Your task to perform on an android device: Do I have any events tomorrow? Image 0: 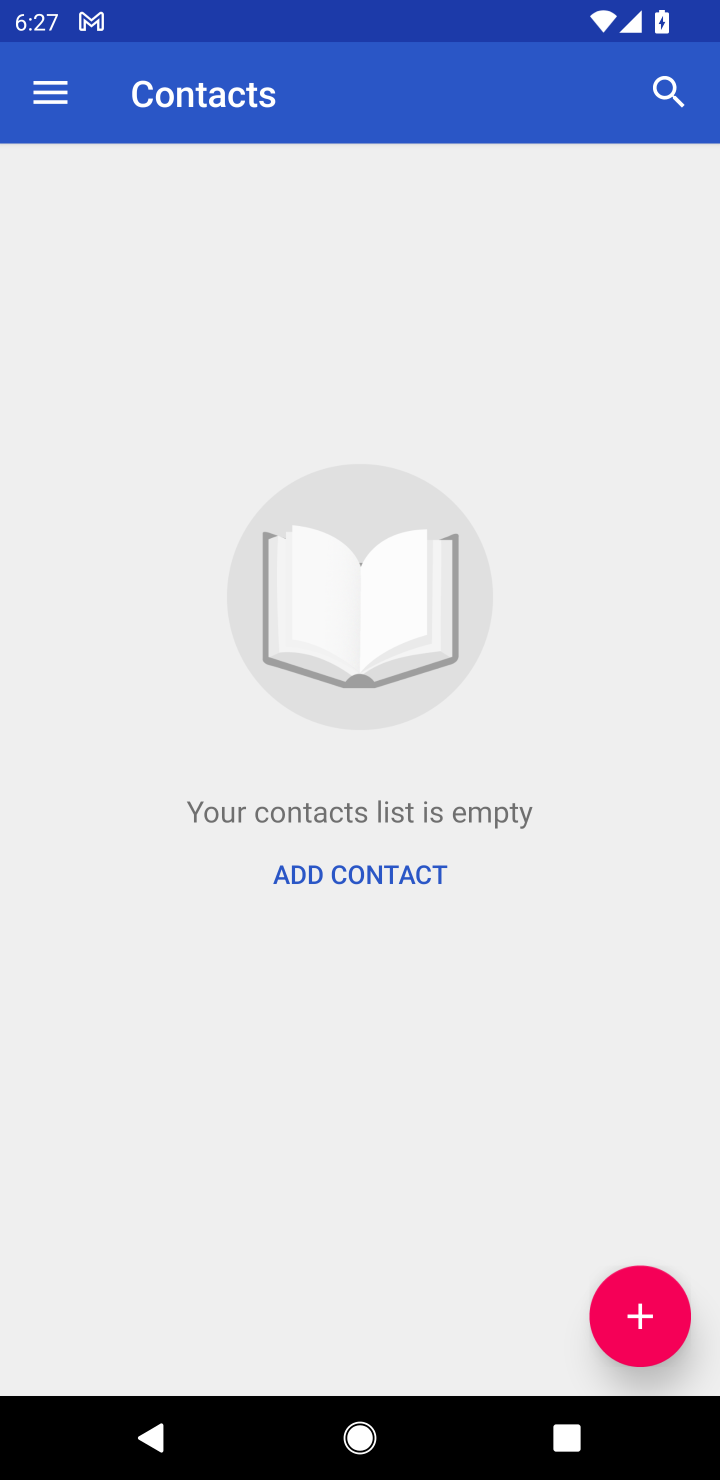
Step 0: press home button
Your task to perform on an android device: Do I have any events tomorrow? Image 1: 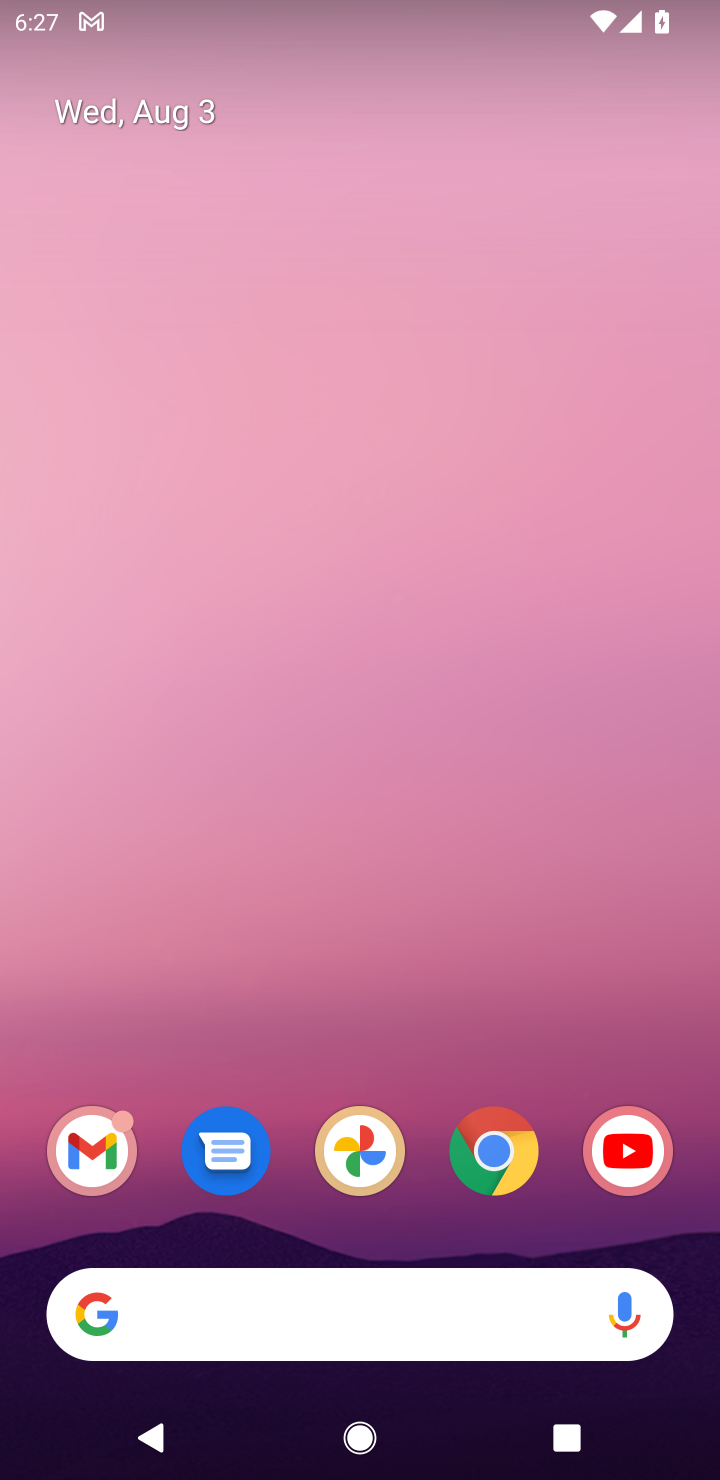
Step 1: drag from (436, 1105) to (390, 399)
Your task to perform on an android device: Do I have any events tomorrow? Image 2: 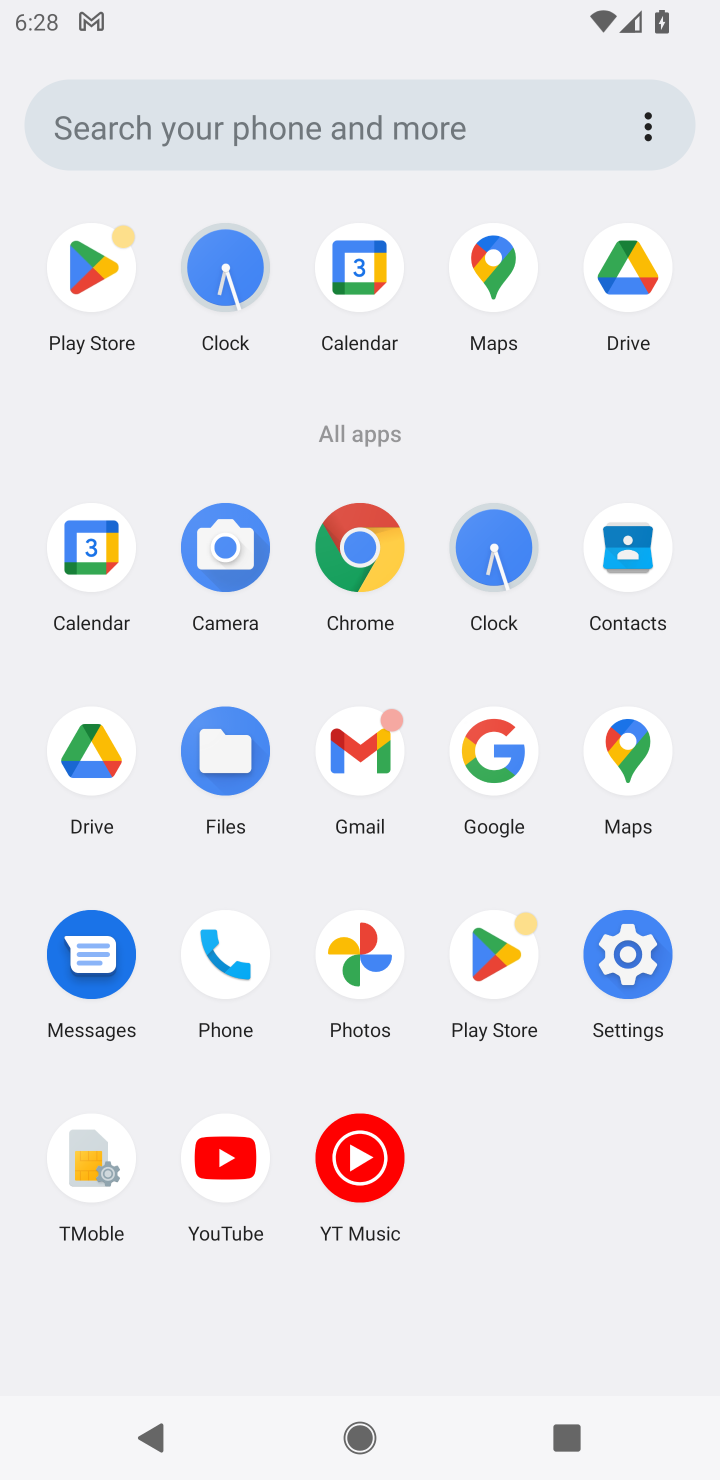
Step 2: click (98, 556)
Your task to perform on an android device: Do I have any events tomorrow? Image 3: 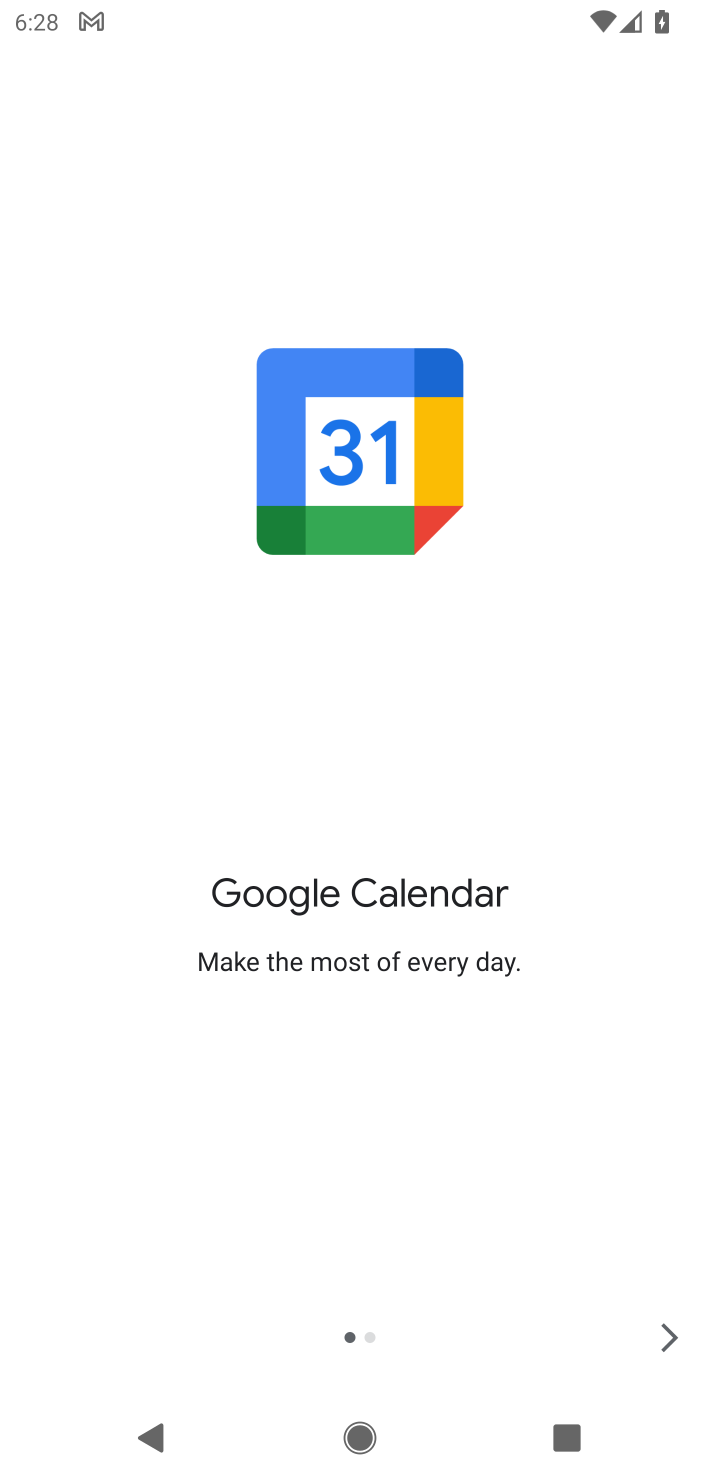
Step 3: click (676, 1330)
Your task to perform on an android device: Do I have any events tomorrow? Image 4: 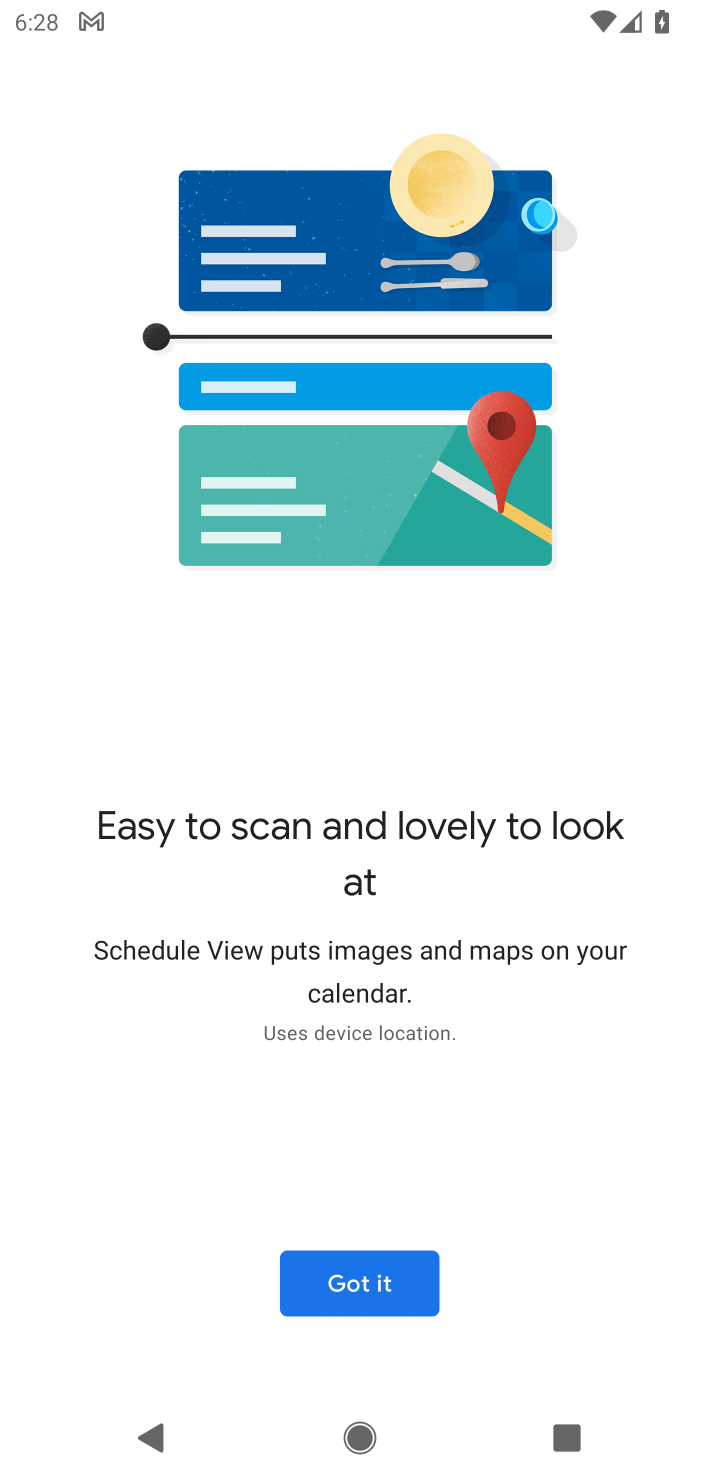
Step 4: click (365, 1267)
Your task to perform on an android device: Do I have any events tomorrow? Image 5: 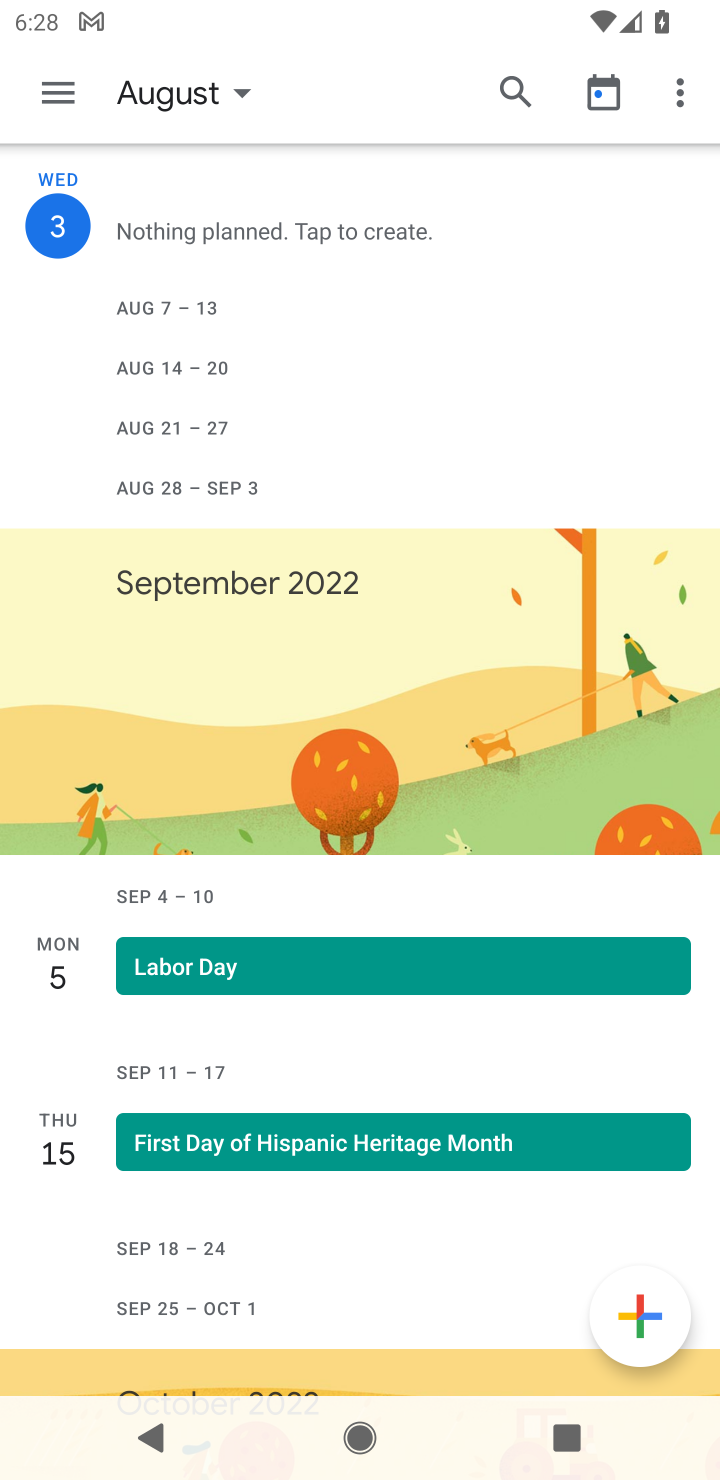
Step 5: click (64, 84)
Your task to perform on an android device: Do I have any events tomorrow? Image 6: 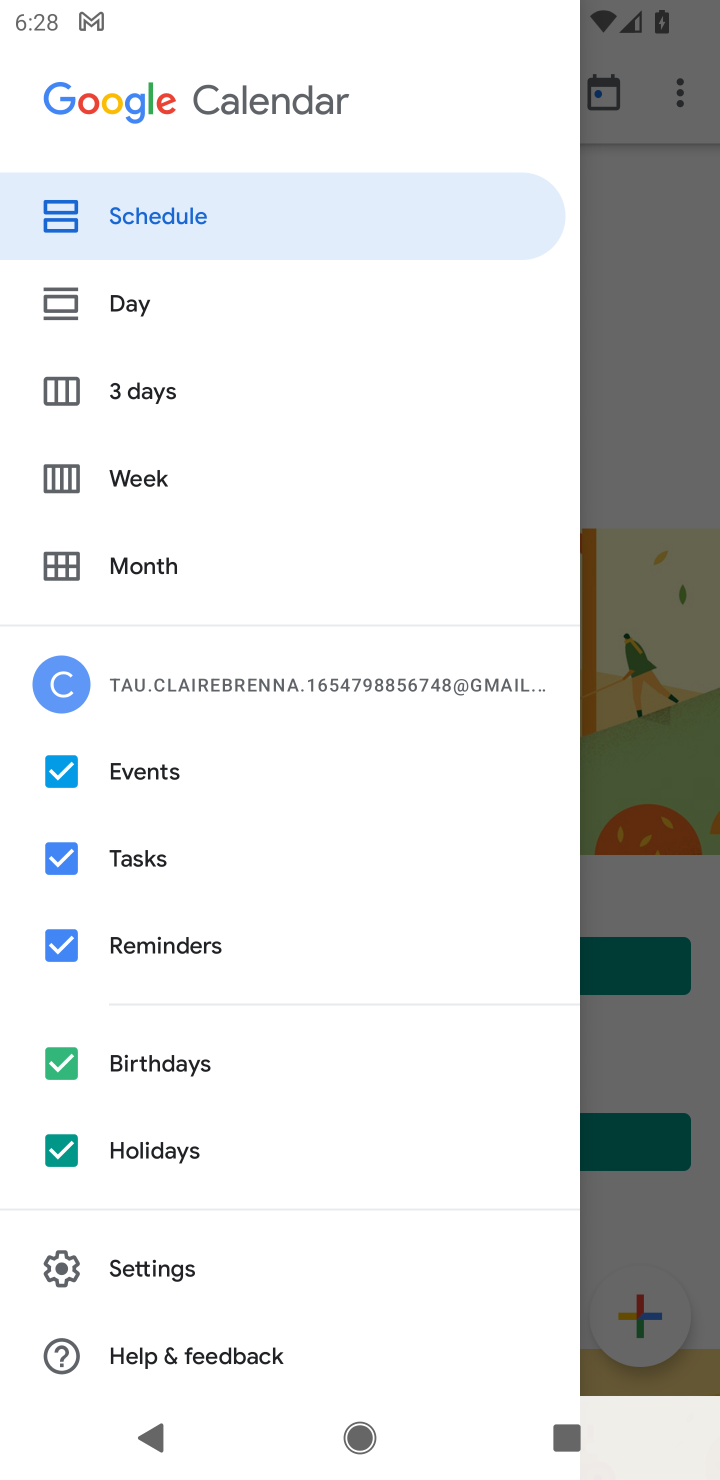
Step 6: click (151, 292)
Your task to perform on an android device: Do I have any events tomorrow? Image 7: 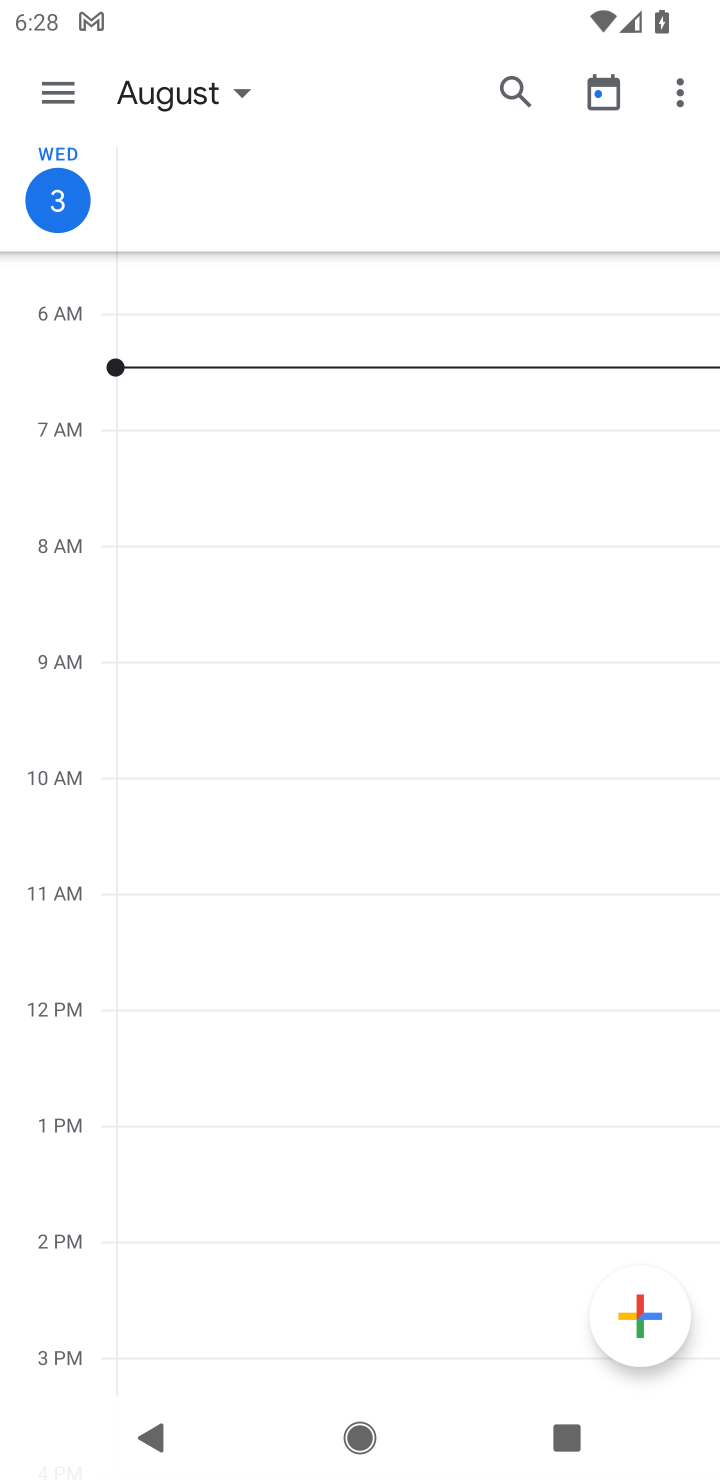
Step 7: click (235, 82)
Your task to perform on an android device: Do I have any events tomorrow? Image 8: 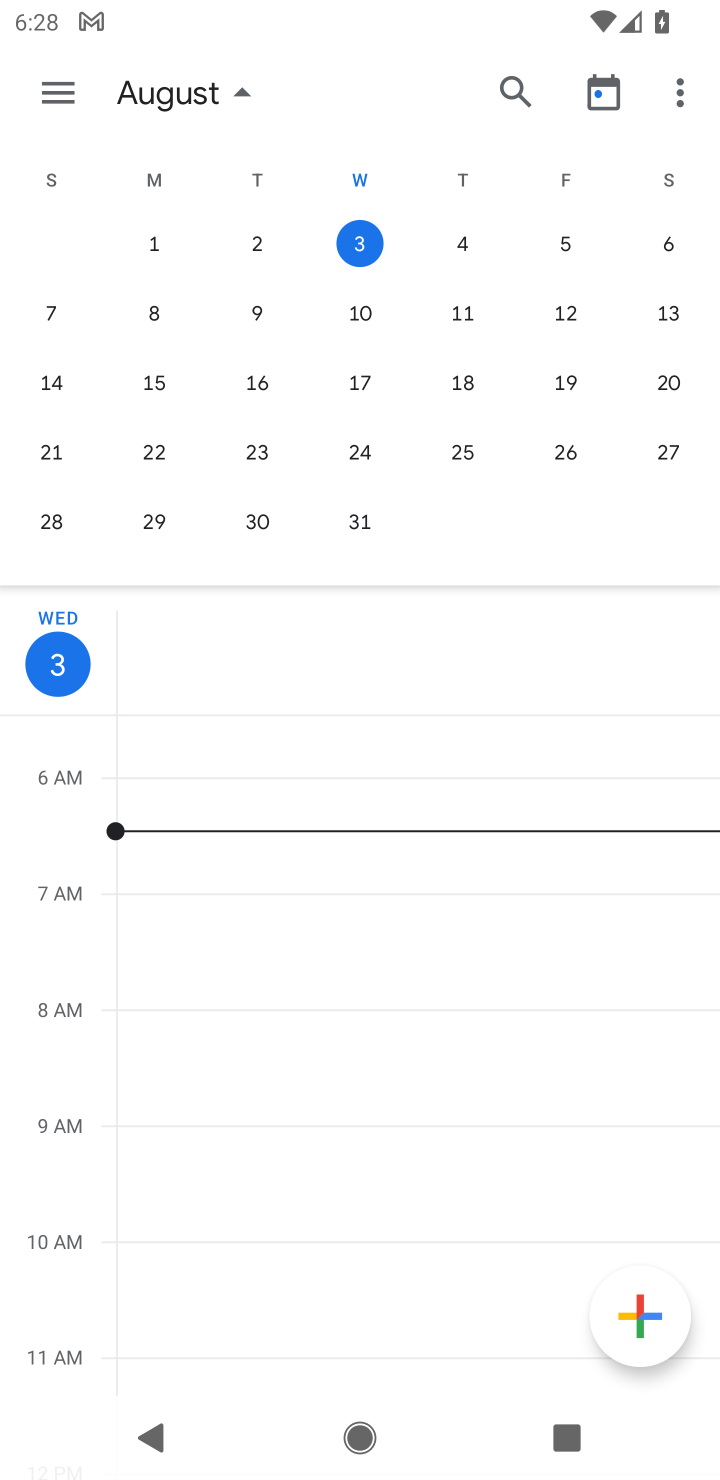
Step 8: click (466, 246)
Your task to perform on an android device: Do I have any events tomorrow? Image 9: 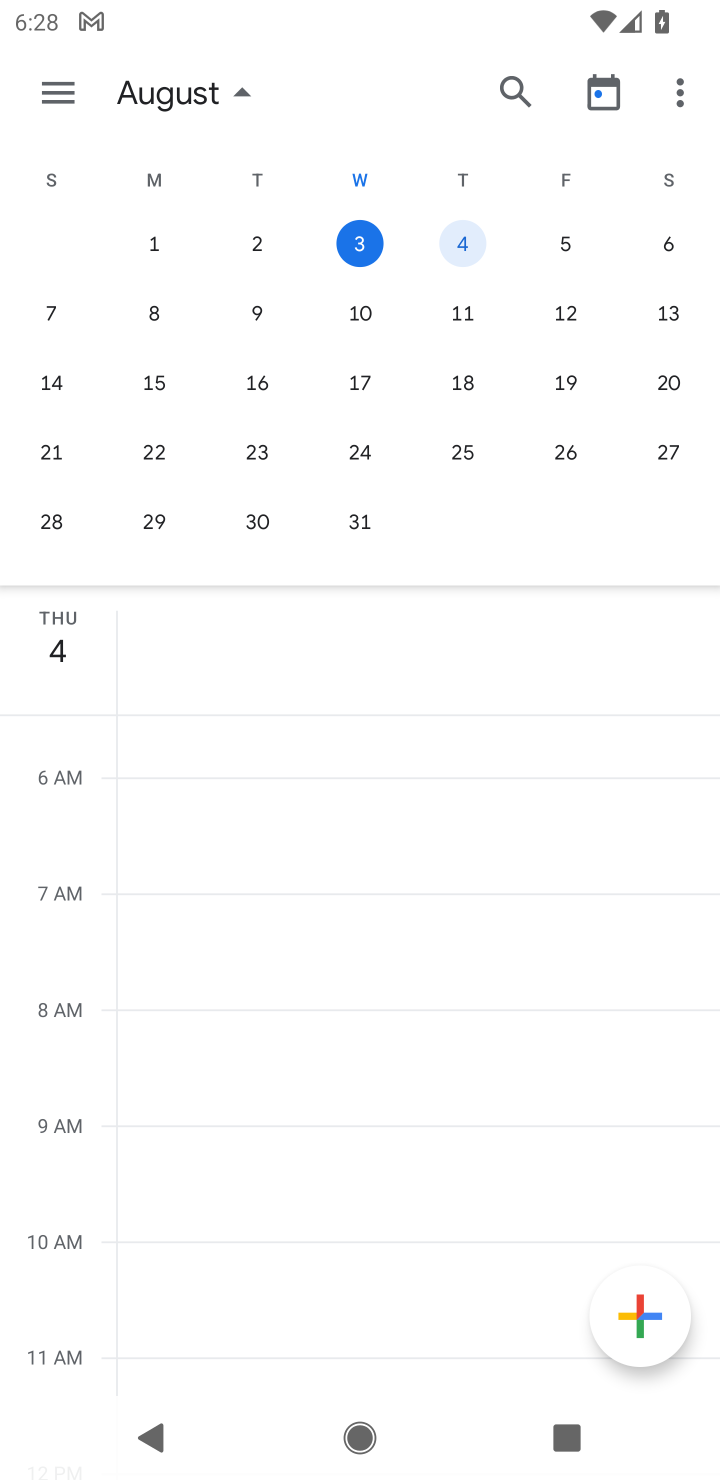
Step 9: task complete